Your task to perform on an android device: change the upload size in google photos Image 0: 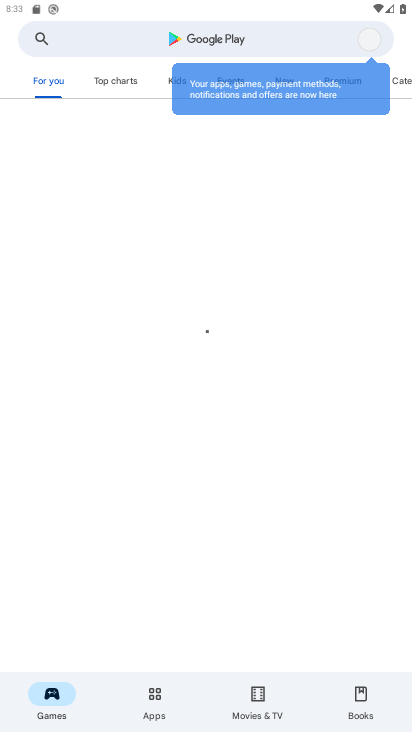
Step 0: press home button
Your task to perform on an android device: change the upload size in google photos Image 1: 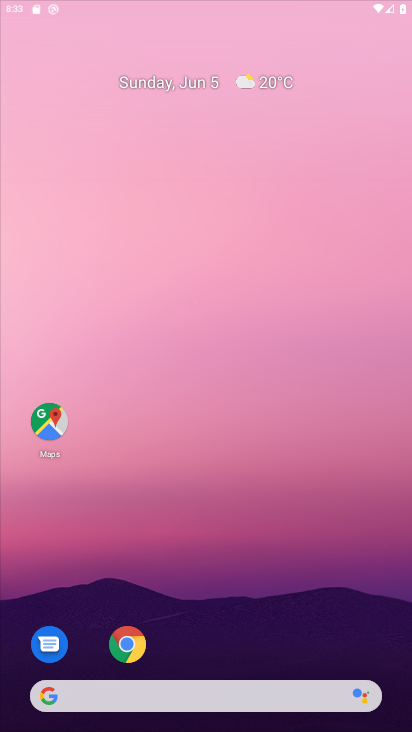
Step 1: drag from (353, 584) to (342, 226)
Your task to perform on an android device: change the upload size in google photos Image 2: 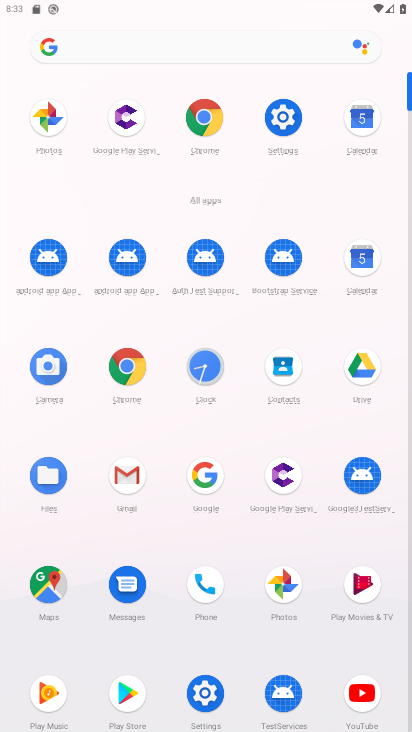
Step 2: click (280, 597)
Your task to perform on an android device: change the upload size in google photos Image 3: 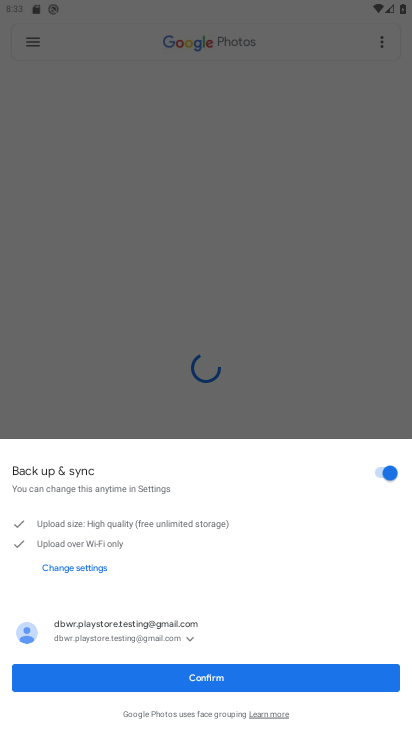
Step 3: click (293, 670)
Your task to perform on an android device: change the upload size in google photos Image 4: 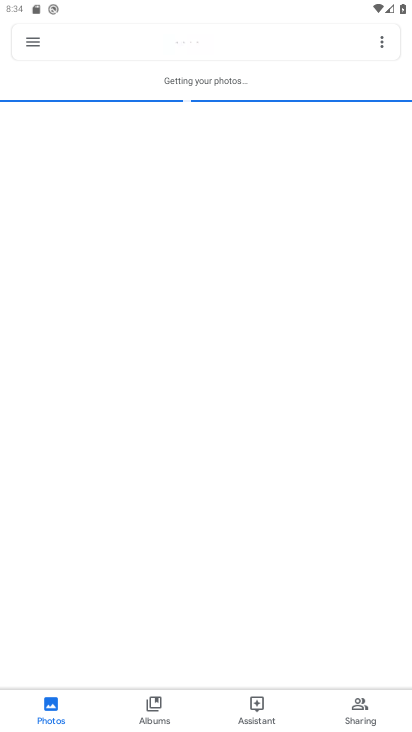
Step 4: click (377, 43)
Your task to perform on an android device: change the upload size in google photos Image 5: 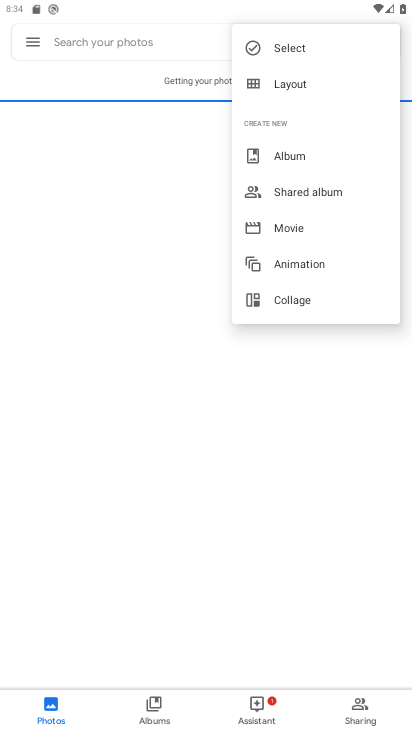
Step 5: click (35, 33)
Your task to perform on an android device: change the upload size in google photos Image 6: 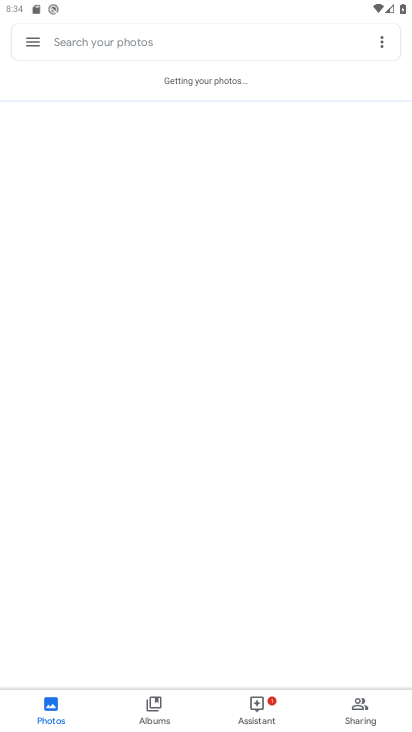
Step 6: click (32, 44)
Your task to perform on an android device: change the upload size in google photos Image 7: 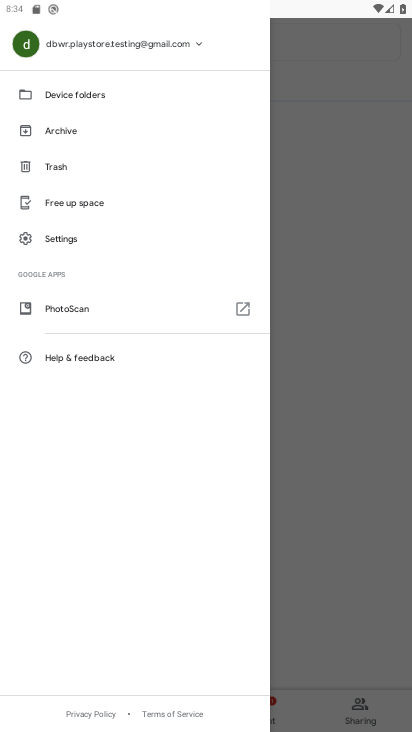
Step 7: click (82, 236)
Your task to perform on an android device: change the upload size in google photos Image 8: 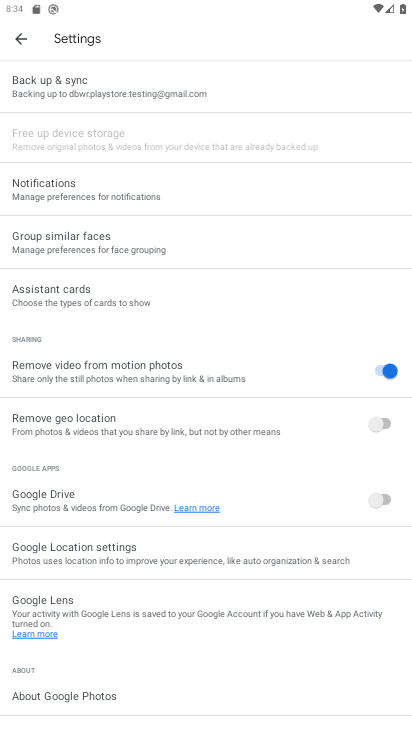
Step 8: click (143, 85)
Your task to perform on an android device: change the upload size in google photos Image 9: 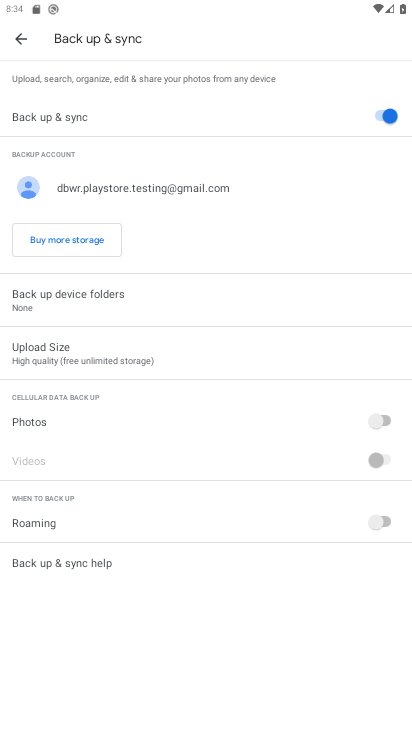
Step 9: click (141, 351)
Your task to perform on an android device: change the upload size in google photos Image 10: 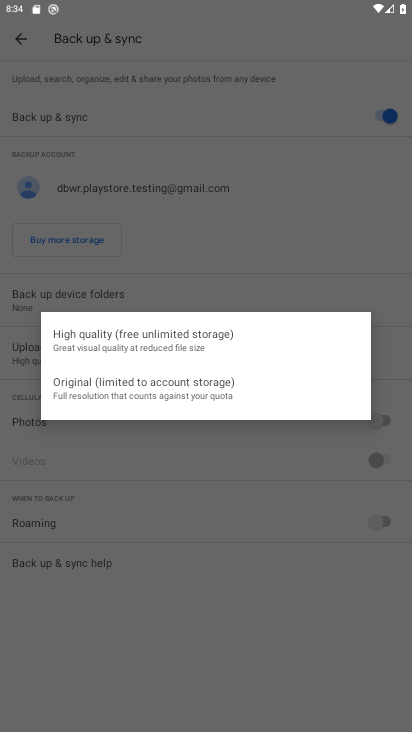
Step 10: click (151, 375)
Your task to perform on an android device: change the upload size in google photos Image 11: 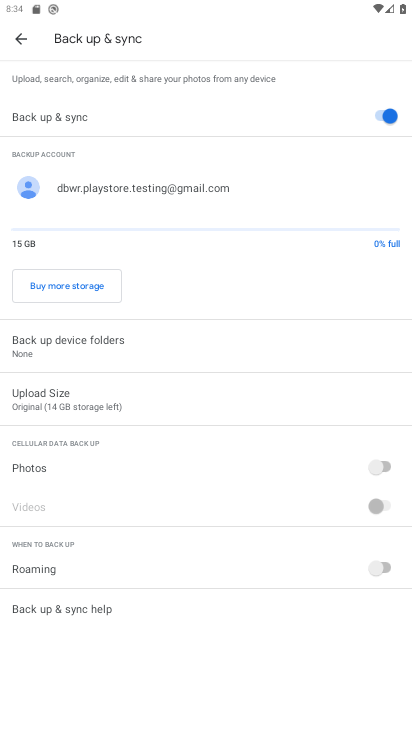
Step 11: task complete